Your task to perform on an android device: When is my next meeting? Image 0: 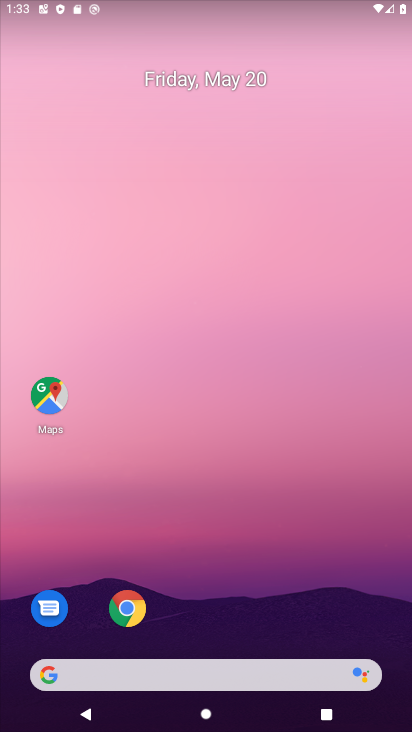
Step 0: drag from (207, 597) to (255, 55)
Your task to perform on an android device: When is my next meeting? Image 1: 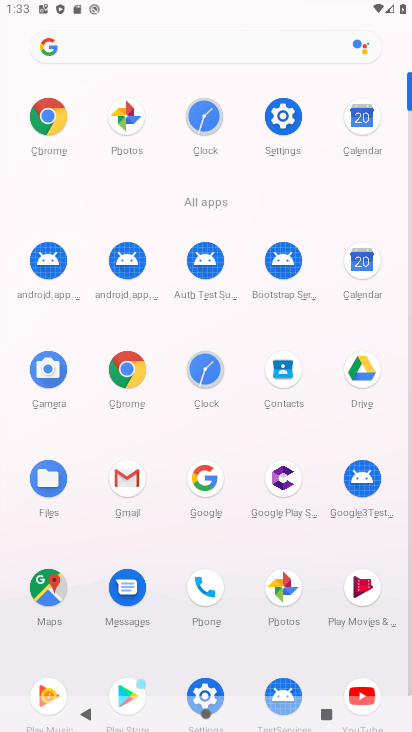
Step 1: click (364, 260)
Your task to perform on an android device: When is my next meeting? Image 2: 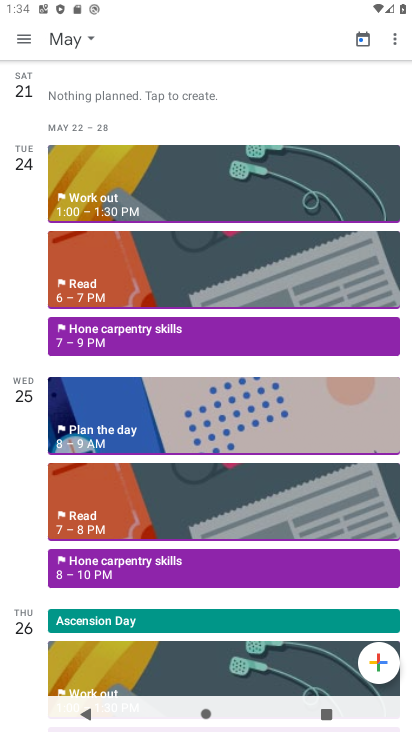
Step 2: task complete